Your task to perform on an android device: See recent photos Image 0: 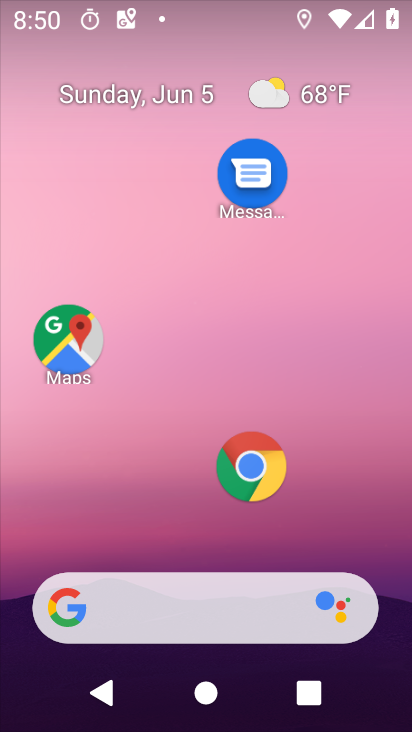
Step 0: drag from (201, 534) to (208, 22)
Your task to perform on an android device: See recent photos Image 1: 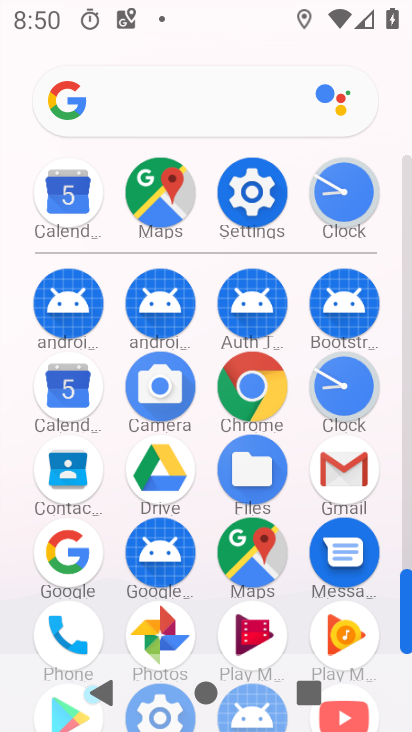
Step 1: click (109, 92)
Your task to perform on an android device: See recent photos Image 2: 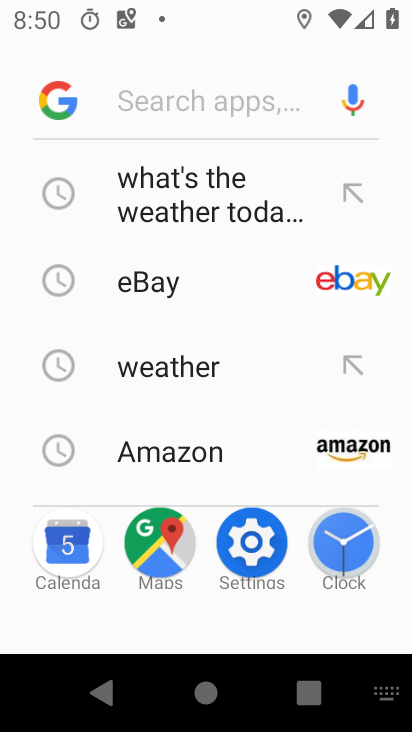
Step 2: press home button
Your task to perform on an android device: See recent photos Image 3: 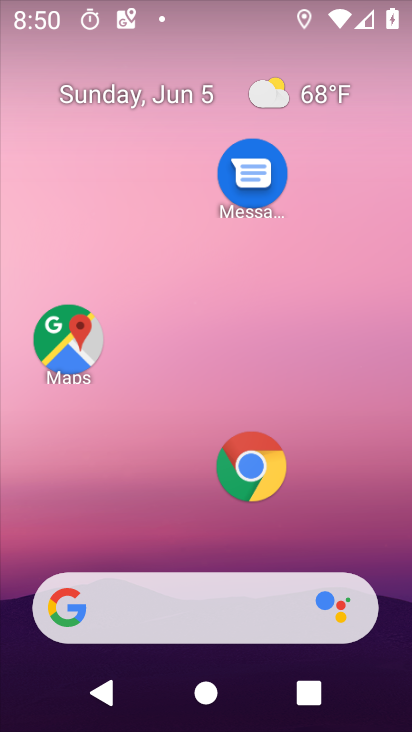
Step 3: drag from (199, 536) to (317, 85)
Your task to perform on an android device: See recent photos Image 4: 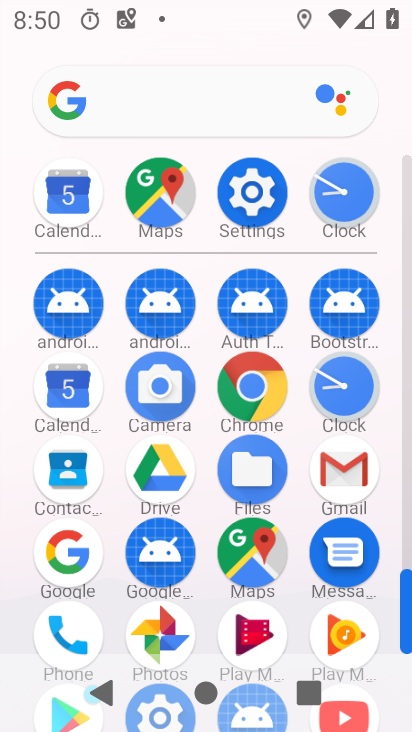
Step 4: click (159, 607)
Your task to perform on an android device: See recent photos Image 5: 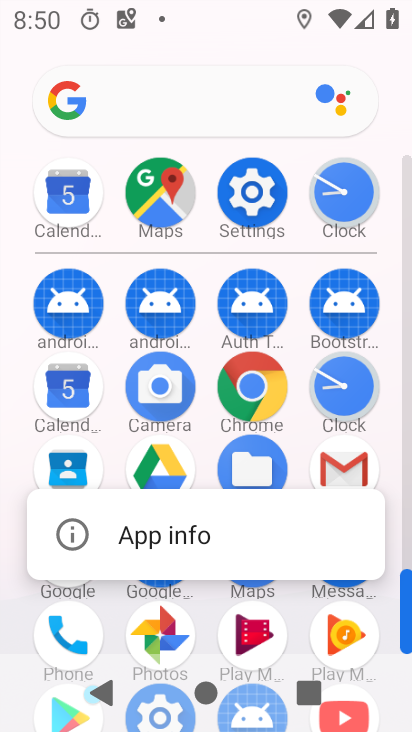
Step 5: click (151, 545)
Your task to perform on an android device: See recent photos Image 6: 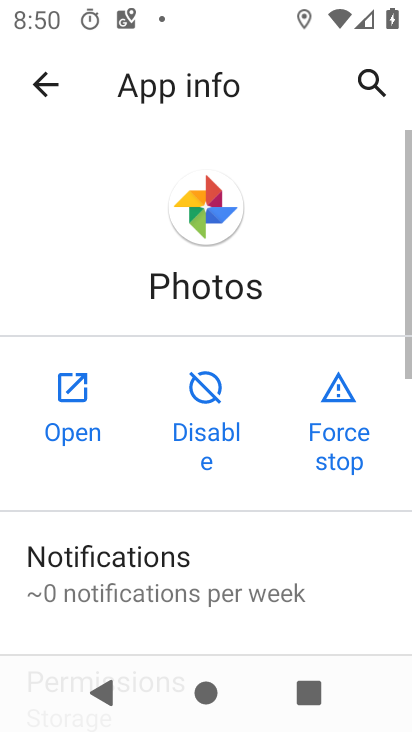
Step 6: click (100, 398)
Your task to perform on an android device: See recent photos Image 7: 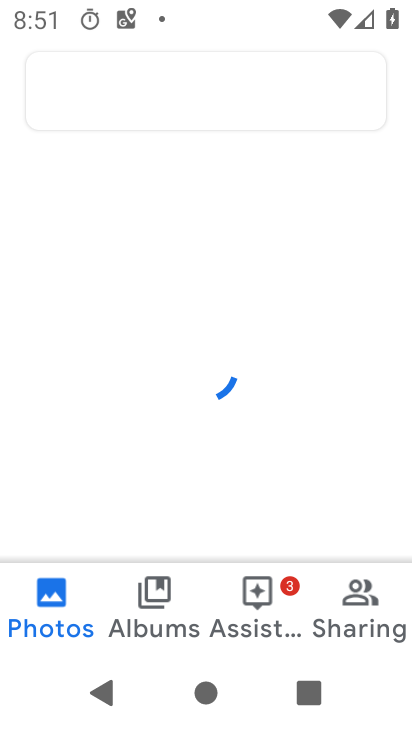
Step 7: drag from (170, 571) to (262, 129)
Your task to perform on an android device: See recent photos Image 8: 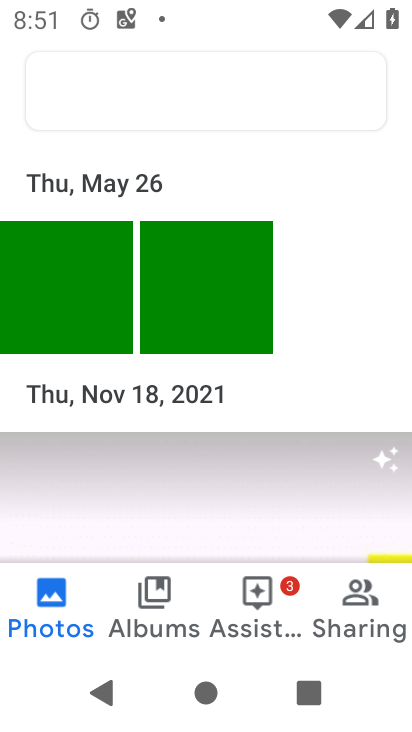
Step 8: drag from (264, 502) to (280, 225)
Your task to perform on an android device: See recent photos Image 9: 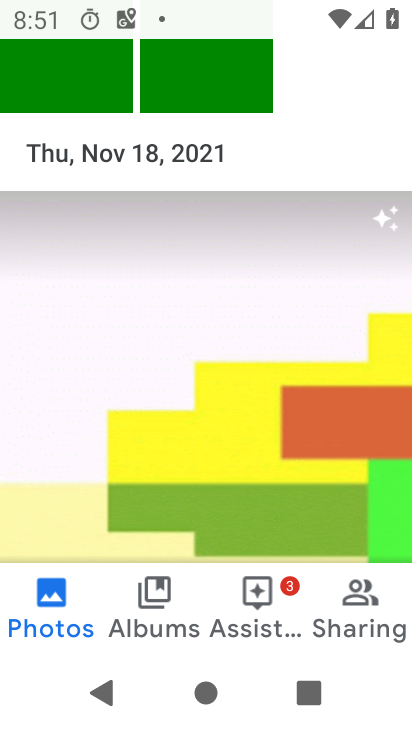
Step 9: drag from (173, 459) to (294, 1)
Your task to perform on an android device: See recent photos Image 10: 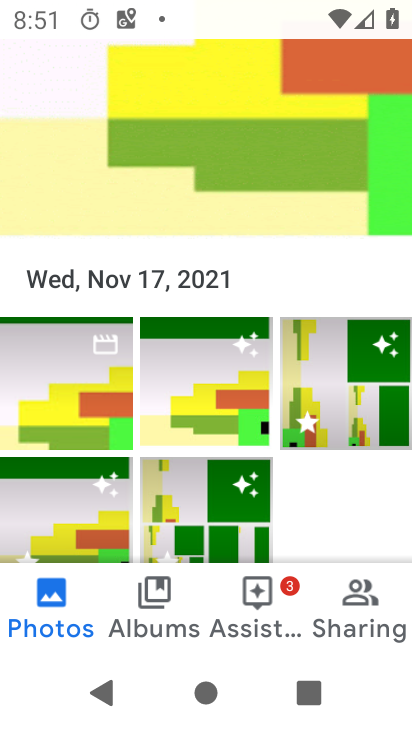
Step 10: drag from (268, 407) to (330, 29)
Your task to perform on an android device: See recent photos Image 11: 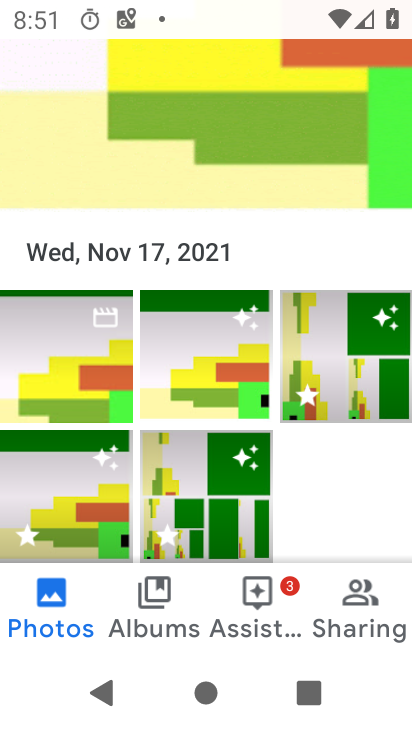
Step 11: click (64, 367)
Your task to perform on an android device: See recent photos Image 12: 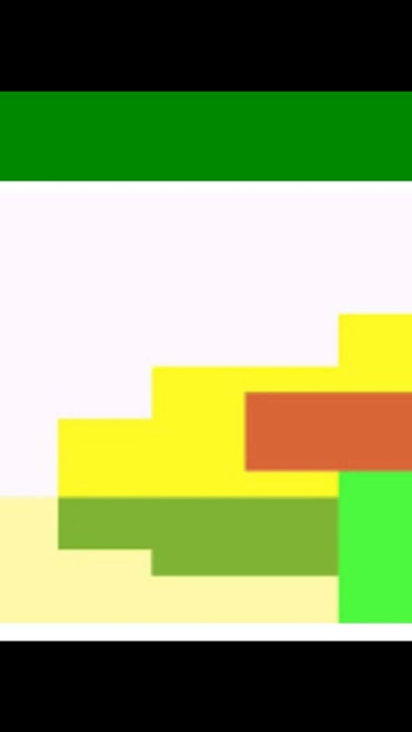
Step 12: drag from (363, 299) to (4, 328)
Your task to perform on an android device: See recent photos Image 13: 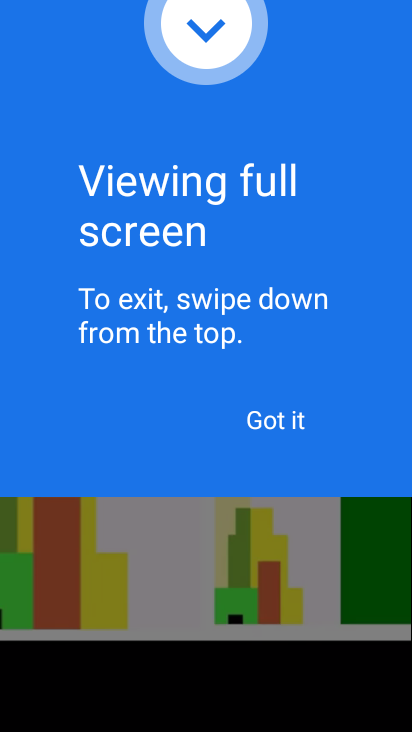
Step 13: click (279, 414)
Your task to perform on an android device: See recent photos Image 14: 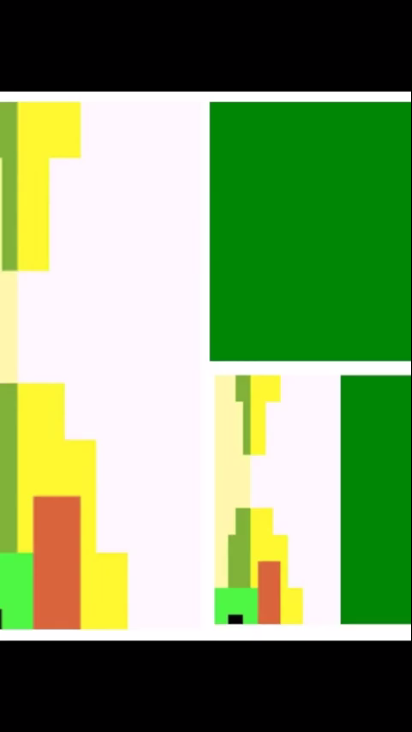
Step 14: task complete